Your task to perform on an android device: open app "Yahoo Mail" Image 0: 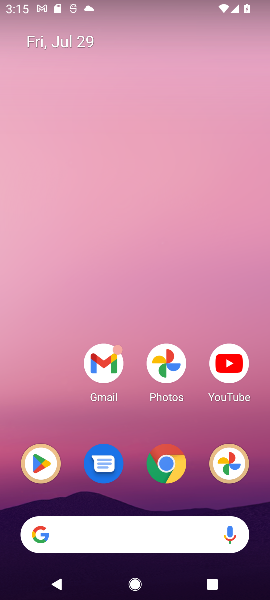
Step 0: drag from (105, 536) to (127, 72)
Your task to perform on an android device: open app "Yahoo Mail" Image 1: 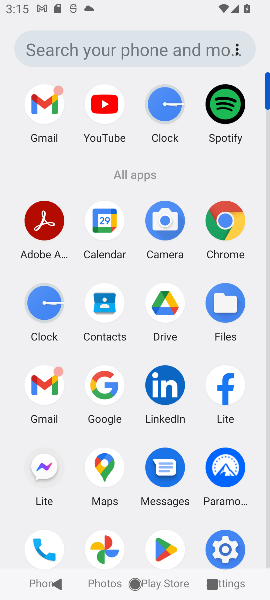
Step 1: click (165, 549)
Your task to perform on an android device: open app "Yahoo Mail" Image 2: 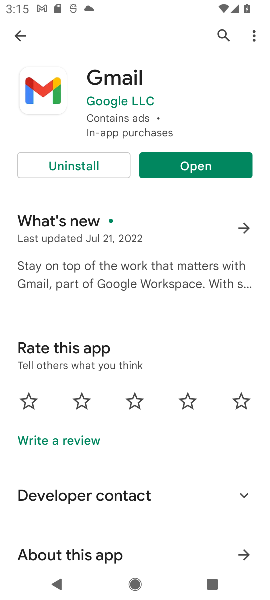
Step 2: click (222, 32)
Your task to perform on an android device: open app "Yahoo Mail" Image 3: 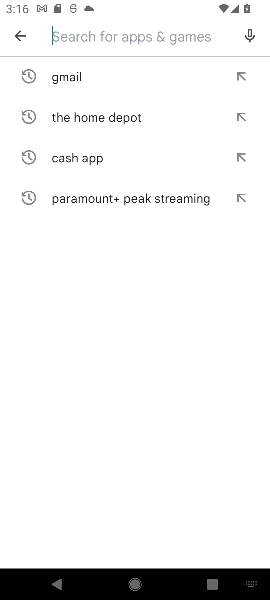
Step 3: type "Yahoo Mail"
Your task to perform on an android device: open app "Yahoo Mail" Image 4: 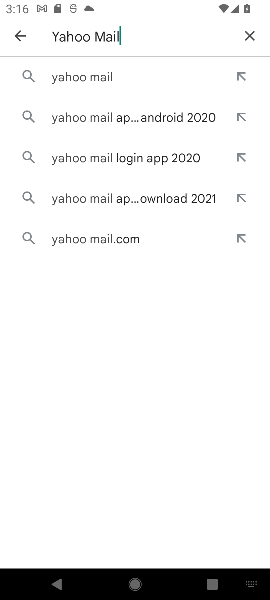
Step 4: click (93, 79)
Your task to perform on an android device: open app "Yahoo Mail" Image 5: 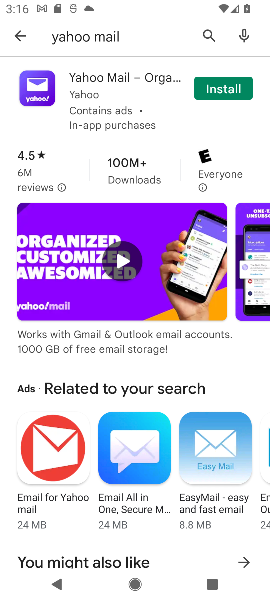
Step 5: task complete